Your task to perform on an android device: Open notification settings Image 0: 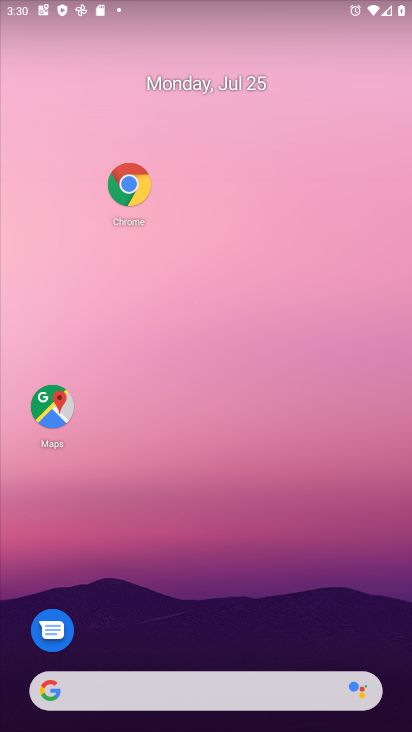
Step 0: drag from (212, 653) to (203, 177)
Your task to perform on an android device: Open notification settings Image 1: 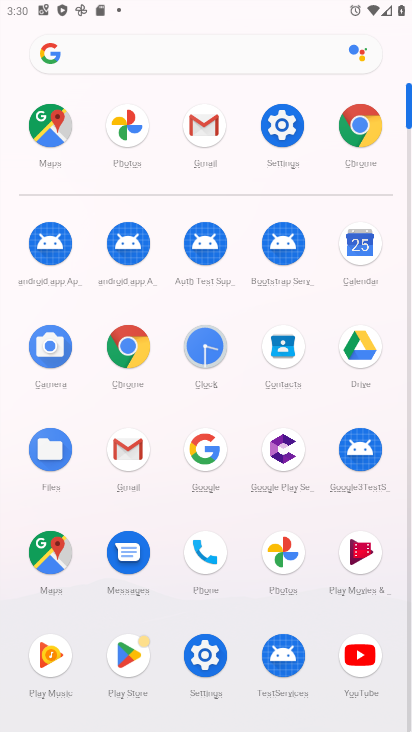
Step 1: click (271, 143)
Your task to perform on an android device: Open notification settings Image 2: 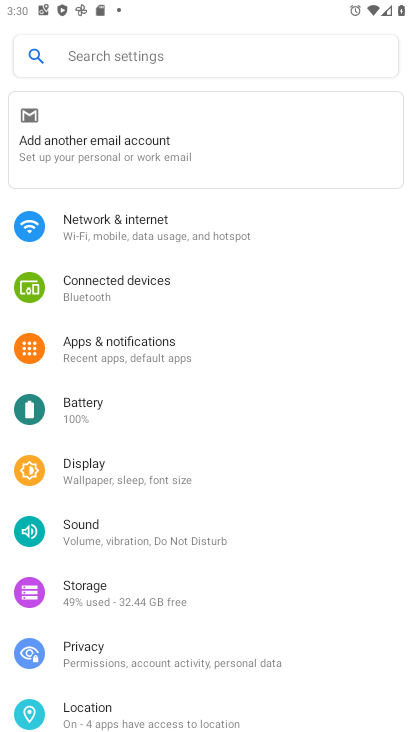
Step 2: click (108, 346)
Your task to perform on an android device: Open notification settings Image 3: 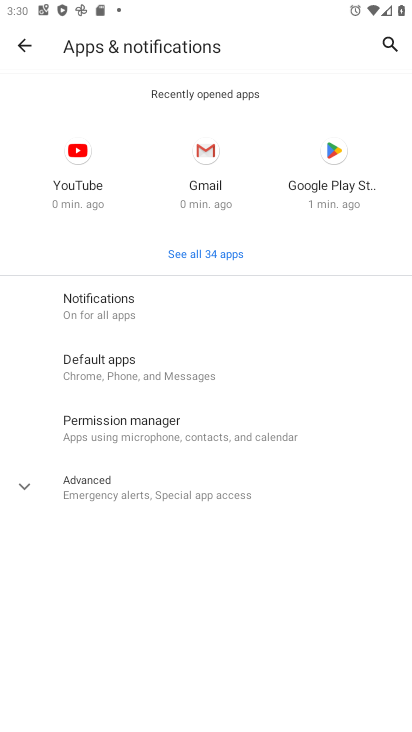
Step 3: task complete